Your task to perform on an android device: Open Google Image 0: 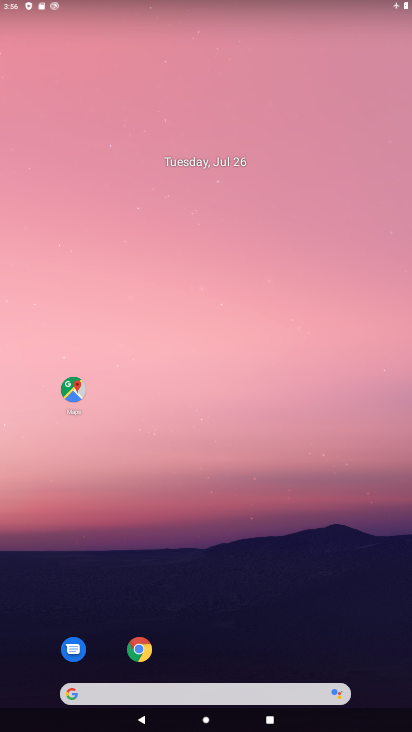
Step 0: drag from (183, 630) to (150, 179)
Your task to perform on an android device: Open Google Image 1: 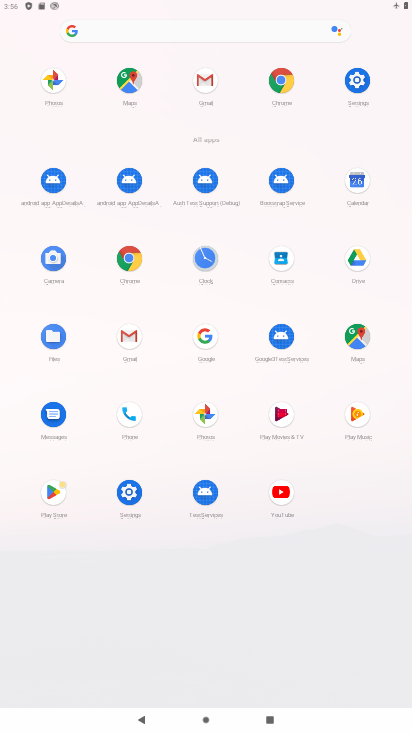
Step 1: click (208, 328)
Your task to perform on an android device: Open Google Image 2: 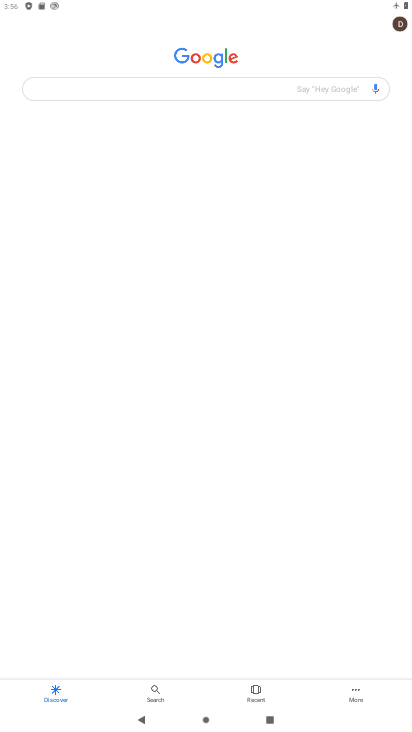
Step 2: task complete